Your task to perform on an android device: turn off location Image 0: 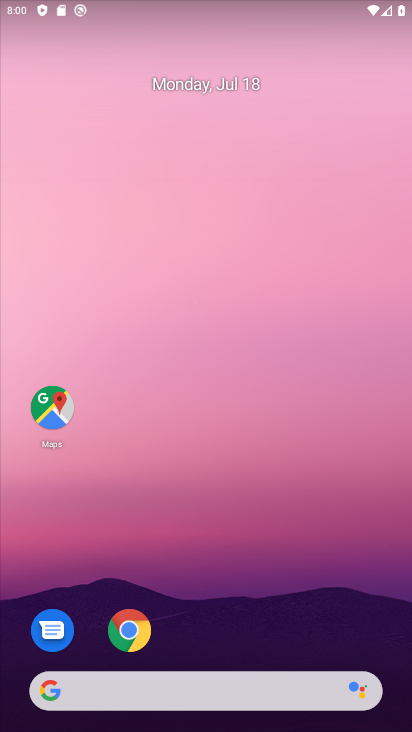
Step 0: drag from (224, 595) to (224, 114)
Your task to perform on an android device: turn off location Image 1: 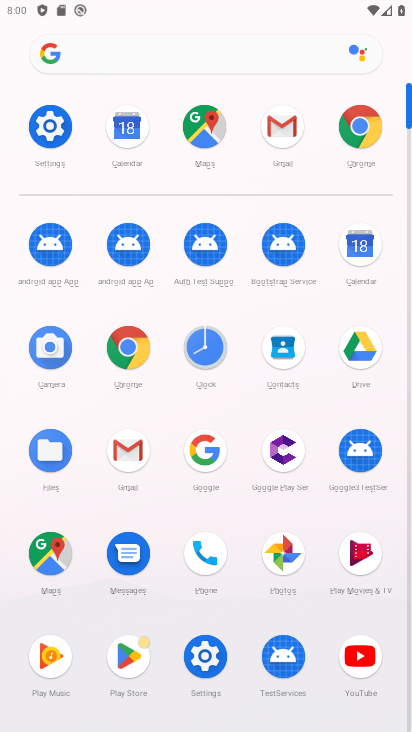
Step 1: click (28, 131)
Your task to perform on an android device: turn off location Image 2: 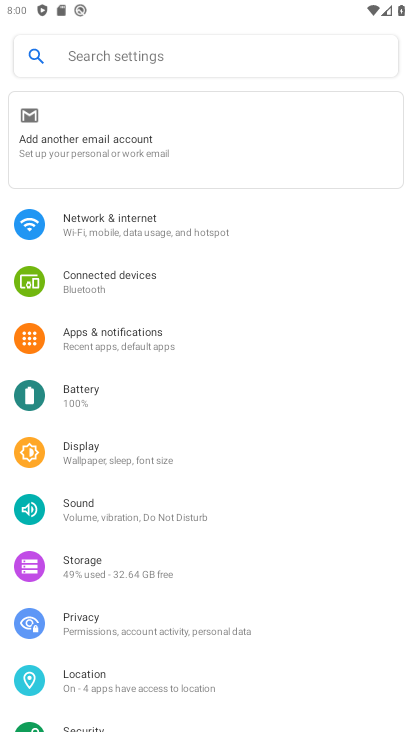
Step 2: click (125, 668)
Your task to perform on an android device: turn off location Image 3: 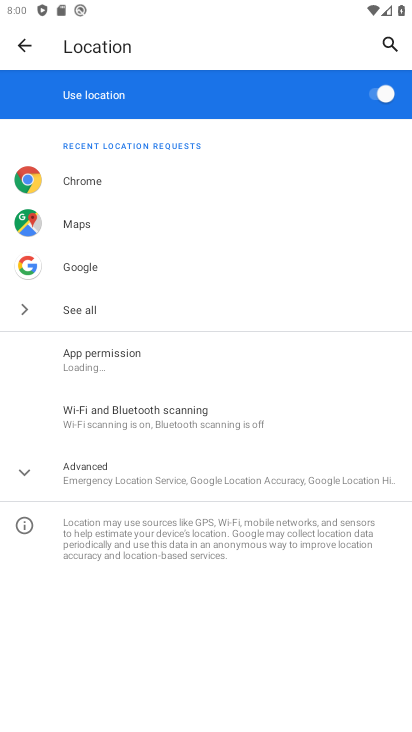
Step 3: click (387, 87)
Your task to perform on an android device: turn off location Image 4: 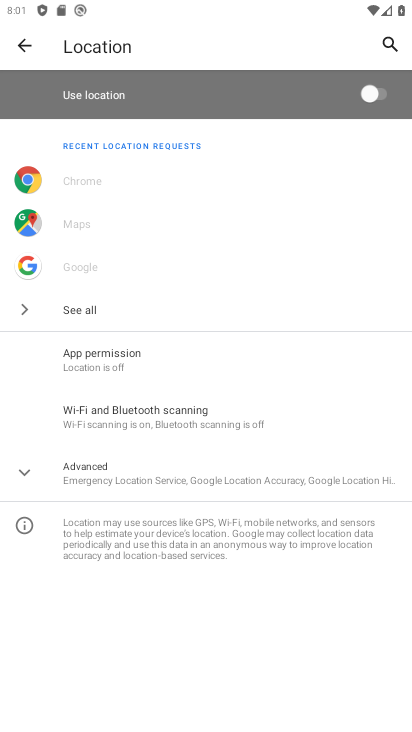
Step 4: task complete